Your task to perform on an android device: Open Android settings Image 0: 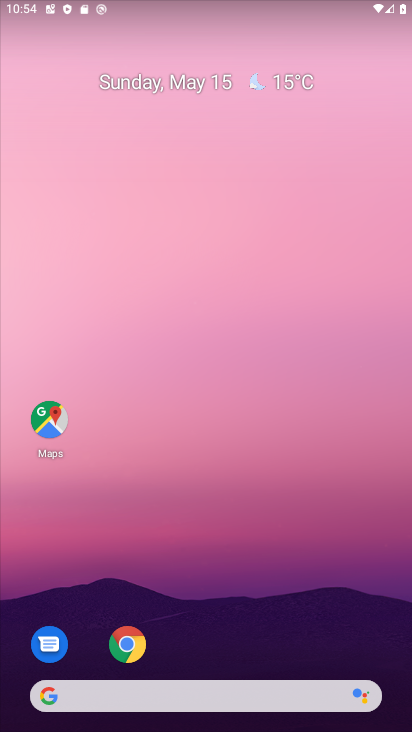
Step 0: drag from (223, 602) to (205, 51)
Your task to perform on an android device: Open Android settings Image 1: 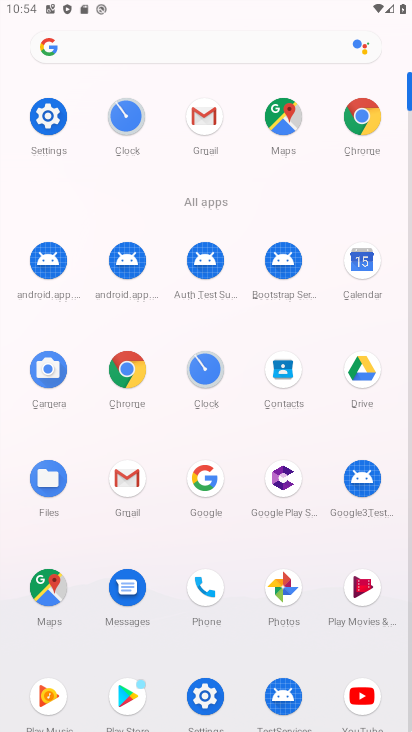
Step 1: click (36, 129)
Your task to perform on an android device: Open Android settings Image 2: 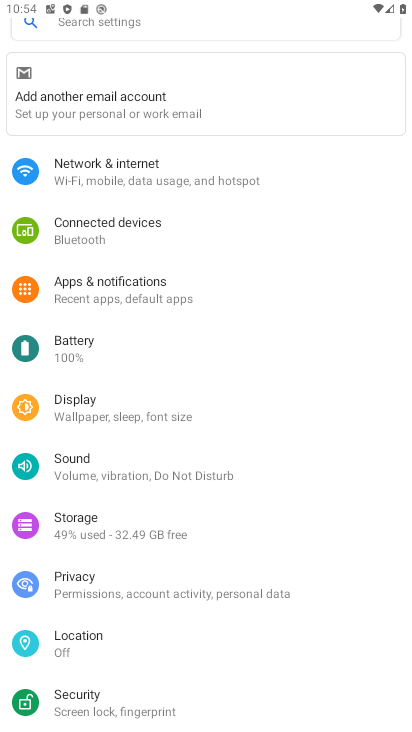
Step 2: drag from (180, 585) to (165, 166)
Your task to perform on an android device: Open Android settings Image 3: 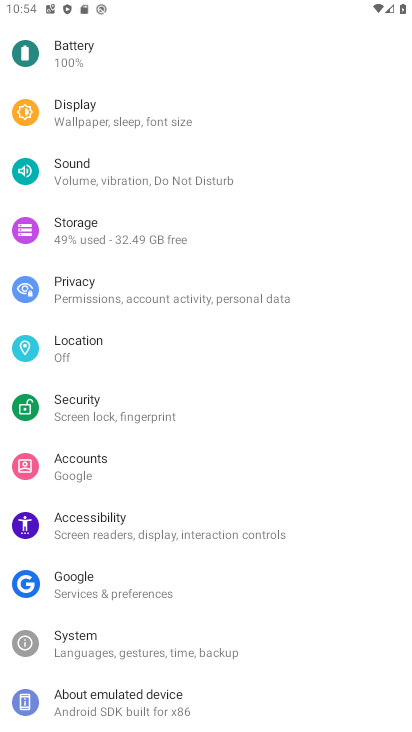
Step 3: drag from (144, 607) to (151, 265)
Your task to perform on an android device: Open Android settings Image 4: 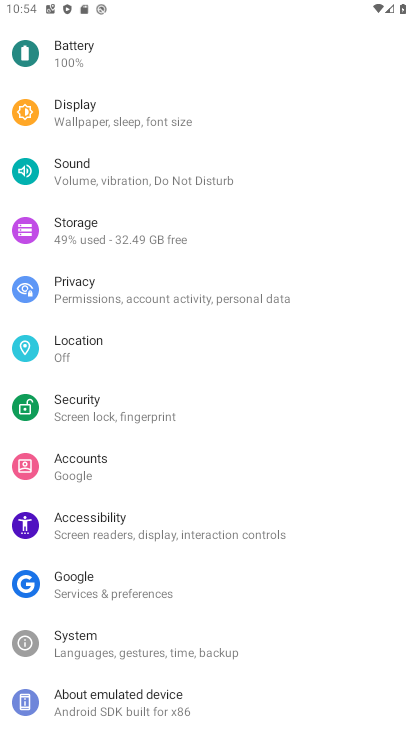
Step 4: click (110, 702)
Your task to perform on an android device: Open Android settings Image 5: 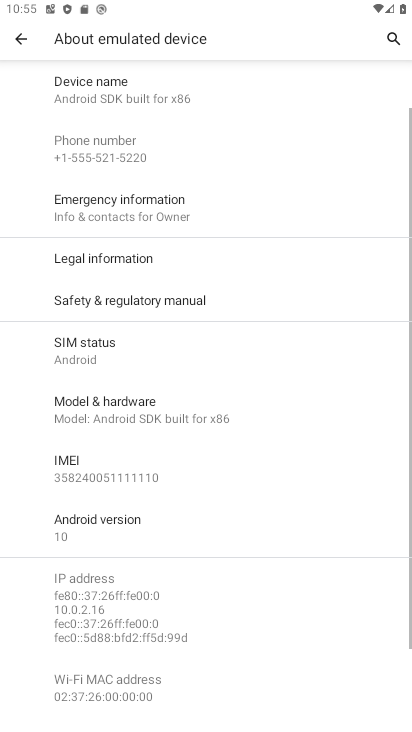
Step 5: click (152, 536)
Your task to perform on an android device: Open Android settings Image 6: 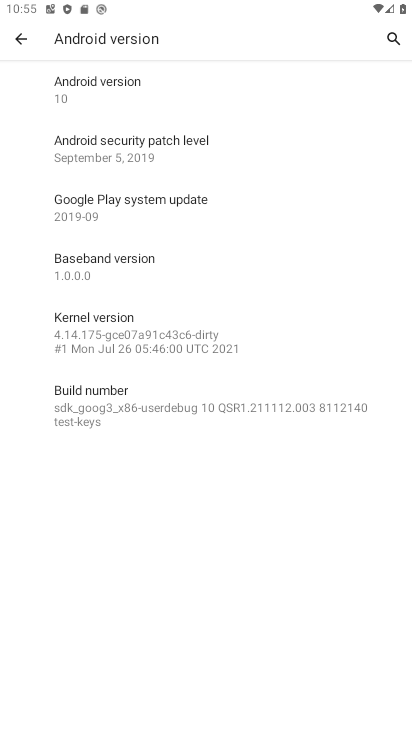
Step 6: click (152, 96)
Your task to perform on an android device: Open Android settings Image 7: 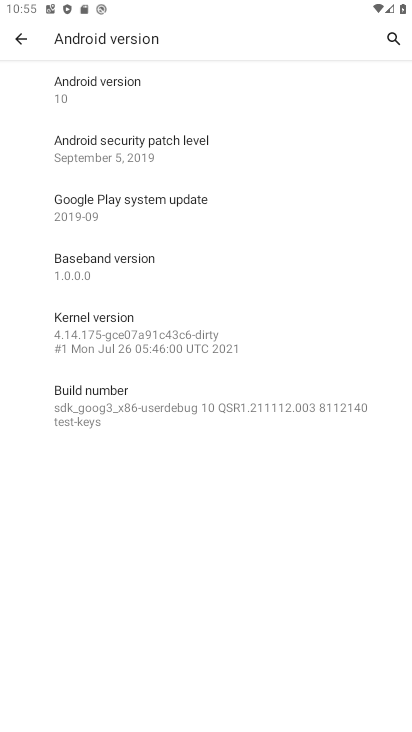
Step 7: task complete